Your task to perform on an android device: open a new tab in the chrome app Image 0: 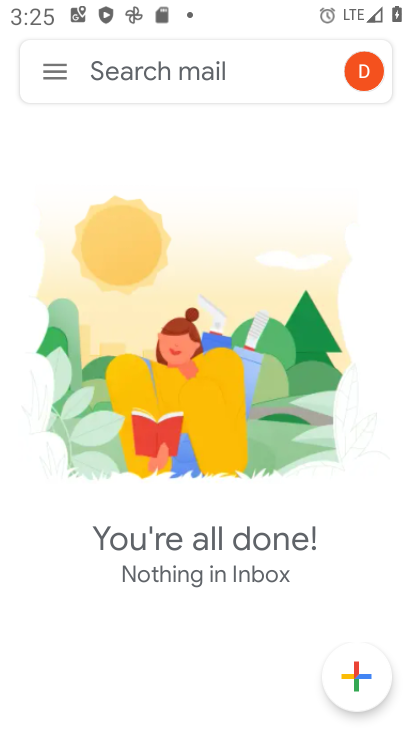
Step 0: press home button
Your task to perform on an android device: open a new tab in the chrome app Image 1: 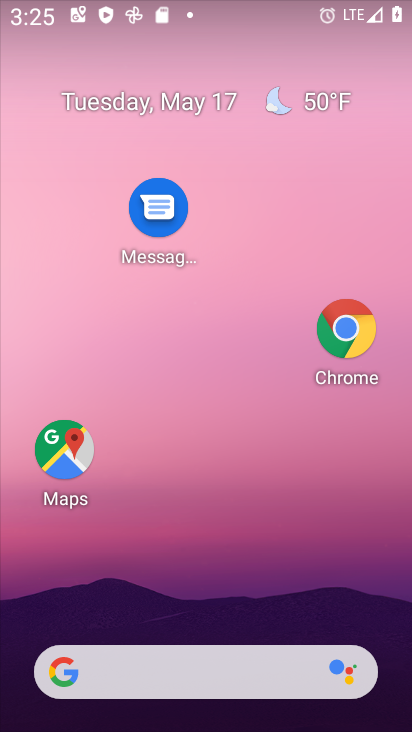
Step 1: click (346, 341)
Your task to perform on an android device: open a new tab in the chrome app Image 2: 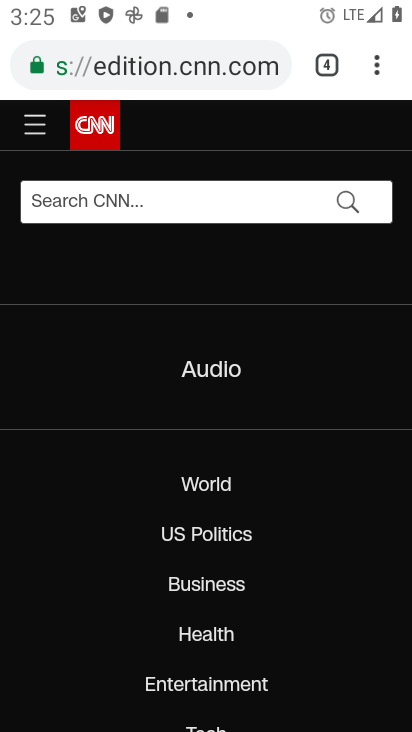
Step 2: click (378, 74)
Your task to perform on an android device: open a new tab in the chrome app Image 3: 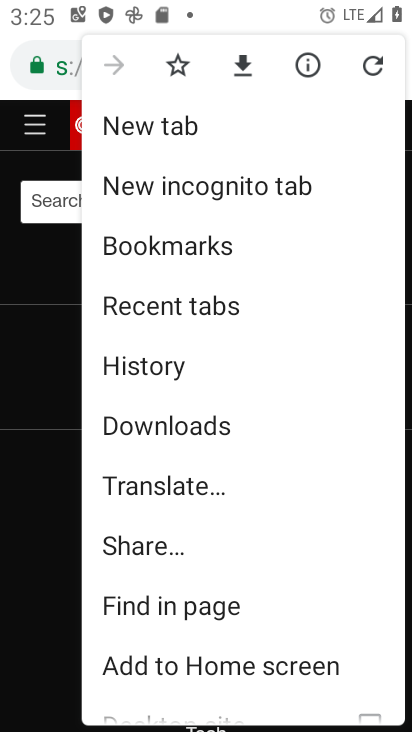
Step 3: click (152, 142)
Your task to perform on an android device: open a new tab in the chrome app Image 4: 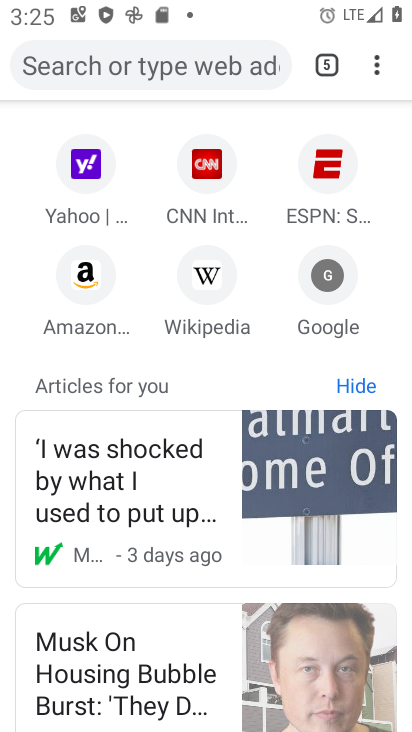
Step 4: task complete